Your task to perform on an android device: How big is the universe? Image 0: 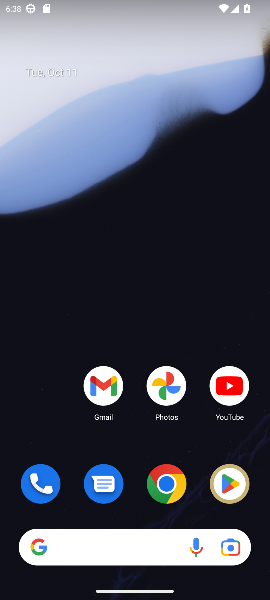
Step 0: click (165, 486)
Your task to perform on an android device: How big is the universe? Image 1: 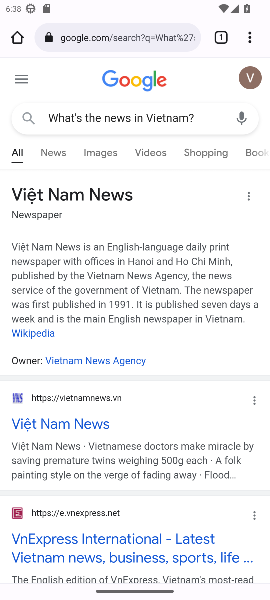
Step 1: click (155, 33)
Your task to perform on an android device: How big is the universe? Image 2: 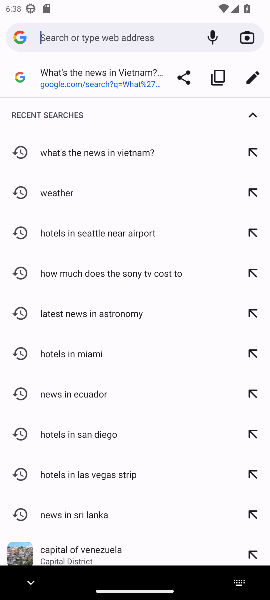
Step 2: type "How big is the universe?"
Your task to perform on an android device: How big is the universe? Image 3: 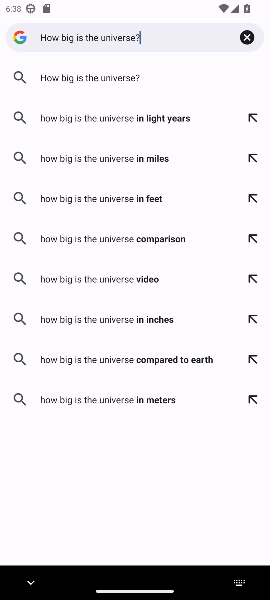
Step 3: click (131, 76)
Your task to perform on an android device: How big is the universe? Image 4: 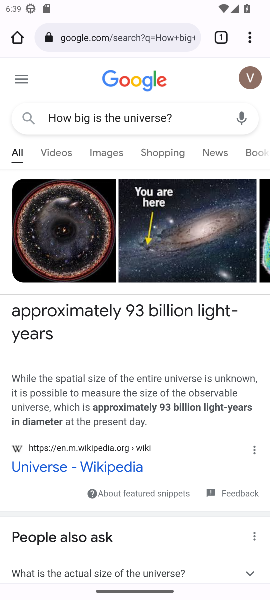
Step 4: task complete